Your task to perform on an android device: manage bookmarks in the chrome app Image 0: 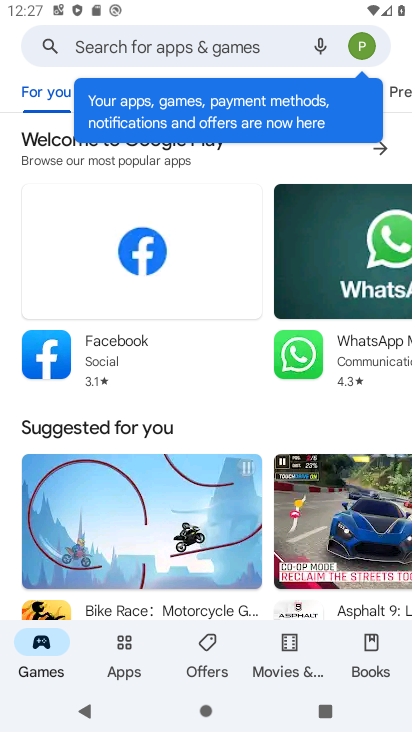
Step 0: press home button
Your task to perform on an android device: manage bookmarks in the chrome app Image 1: 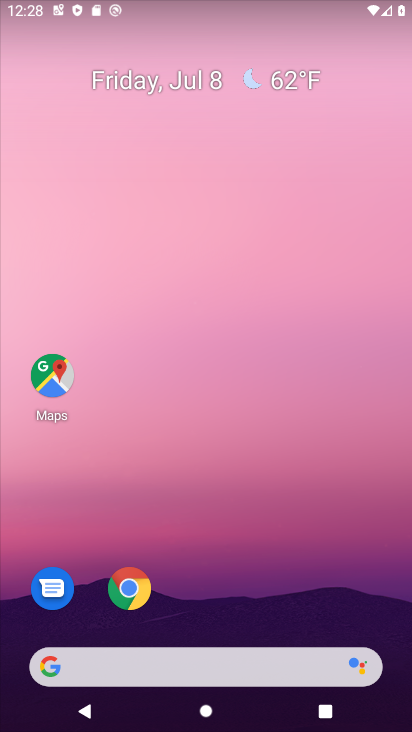
Step 1: drag from (164, 30) to (0, 412)
Your task to perform on an android device: manage bookmarks in the chrome app Image 2: 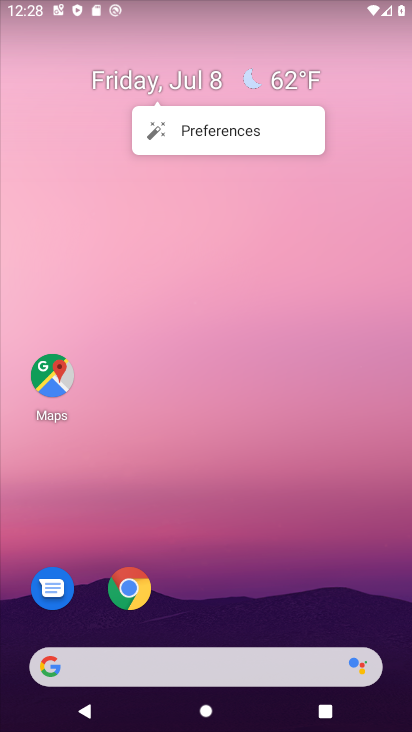
Step 2: click (122, 591)
Your task to perform on an android device: manage bookmarks in the chrome app Image 3: 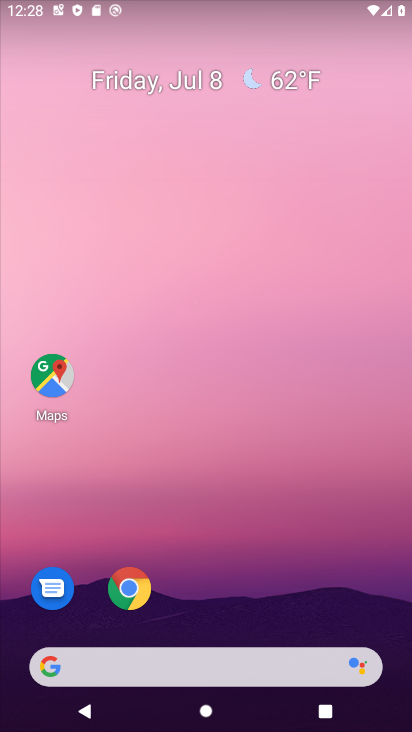
Step 3: click (137, 584)
Your task to perform on an android device: manage bookmarks in the chrome app Image 4: 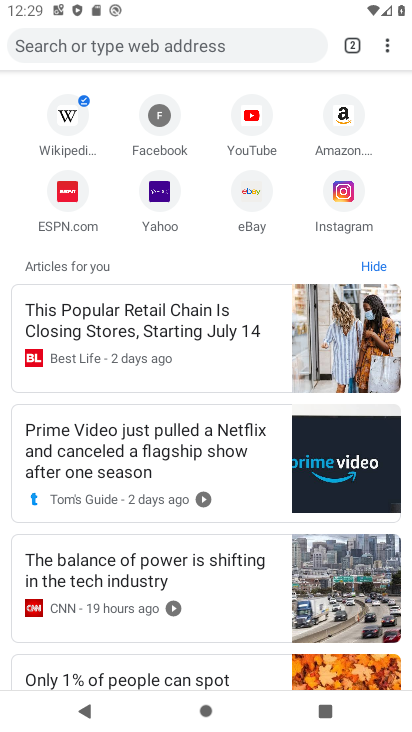
Step 4: click (383, 40)
Your task to perform on an android device: manage bookmarks in the chrome app Image 5: 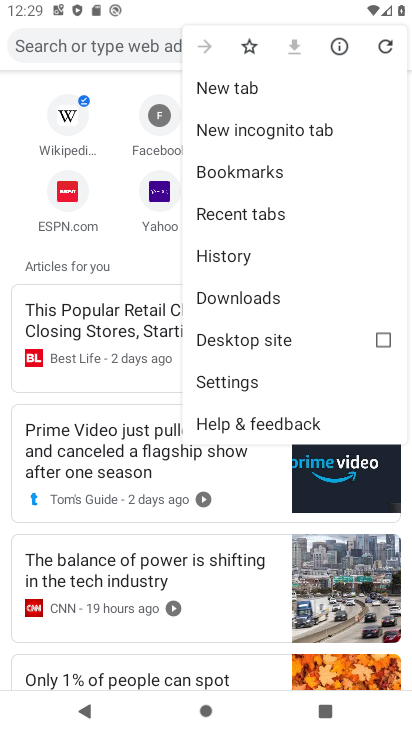
Step 5: click (251, 169)
Your task to perform on an android device: manage bookmarks in the chrome app Image 6: 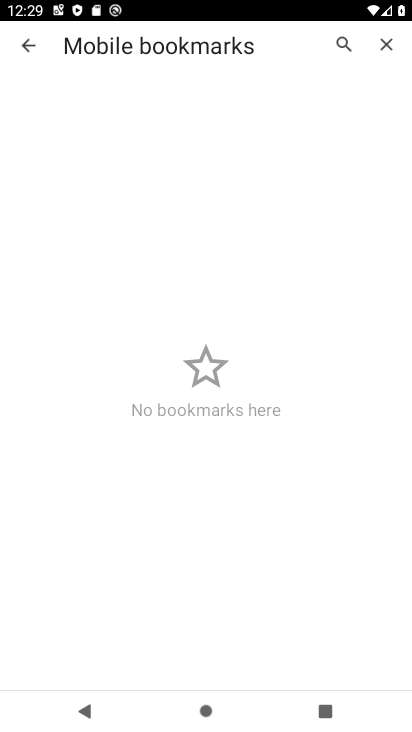
Step 6: task complete